Your task to perform on an android device: toggle data saver in the chrome app Image 0: 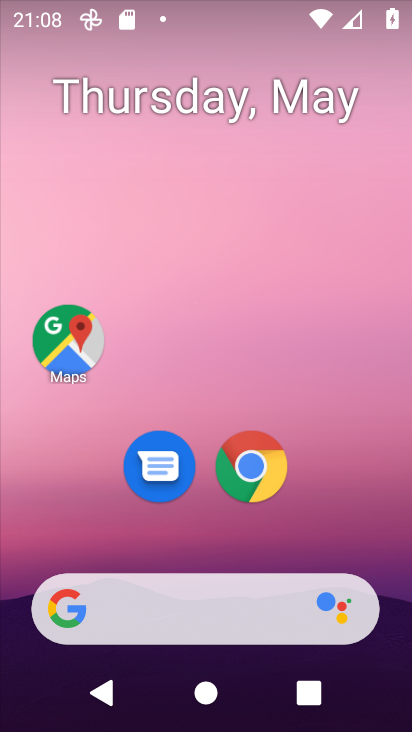
Step 0: click (283, 471)
Your task to perform on an android device: toggle data saver in the chrome app Image 1: 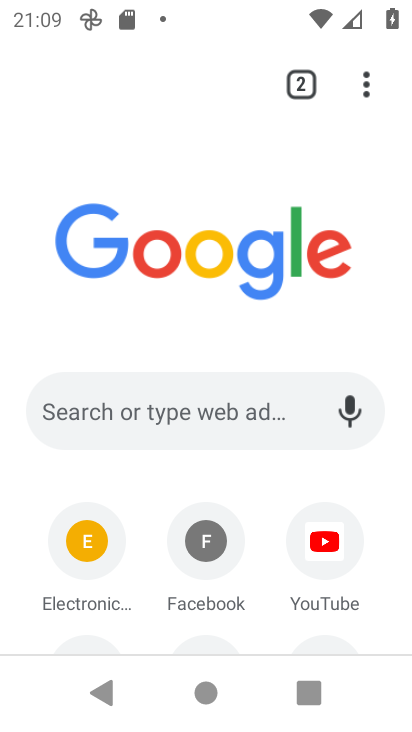
Step 1: click (366, 87)
Your task to perform on an android device: toggle data saver in the chrome app Image 2: 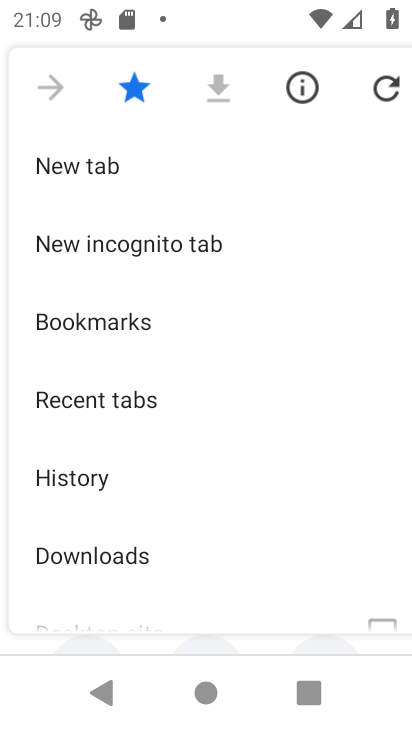
Step 2: drag from (202, 516) to (175, 168)
Your task to perform on an android device: toggle data saver in the chrome app Image 3: 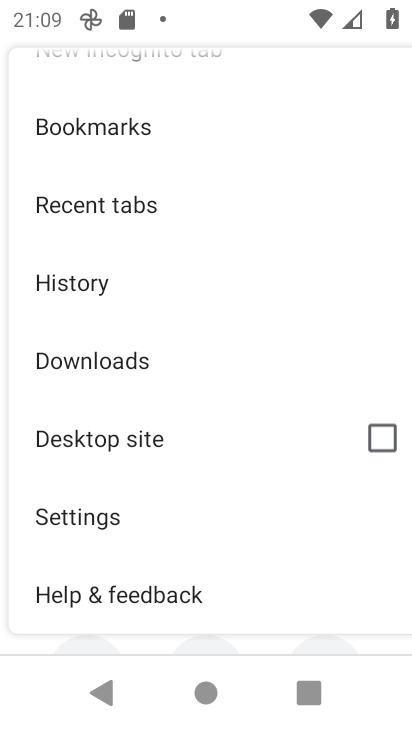
Step 3: click (197, 513)
Your task to perform on an android device: toggle data saver in the chrome app Image 4: 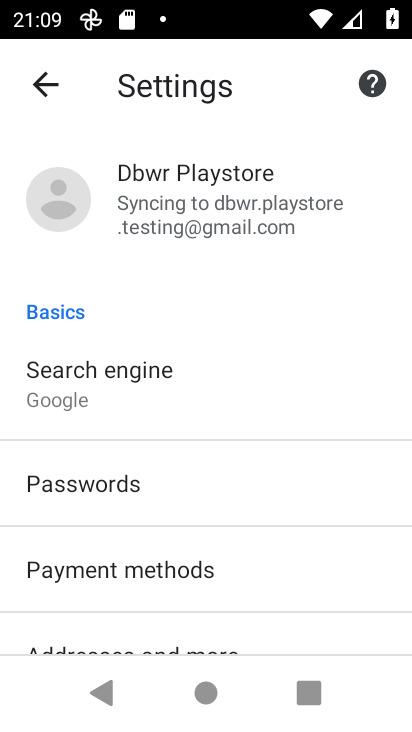
Step 4: drag from (227, 560) to (156, 101)
Your task to perform on an android device: toggle data saver in the chrome app Image 5: 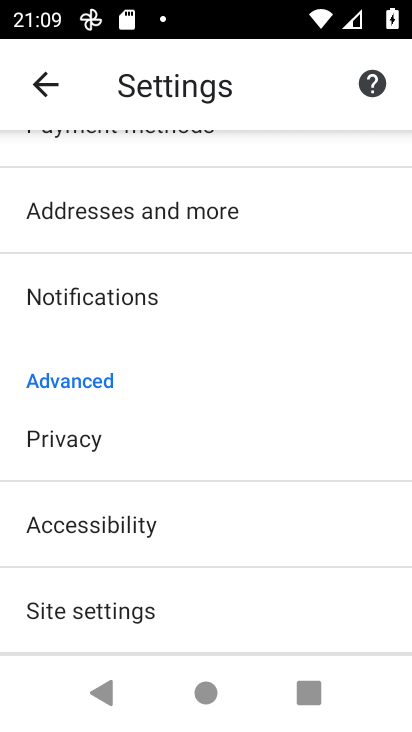
Step 5: drag from (181, 588) to (180, 386)
Your task to perform on an android device: toggle data saver in the chrome app Image 6: 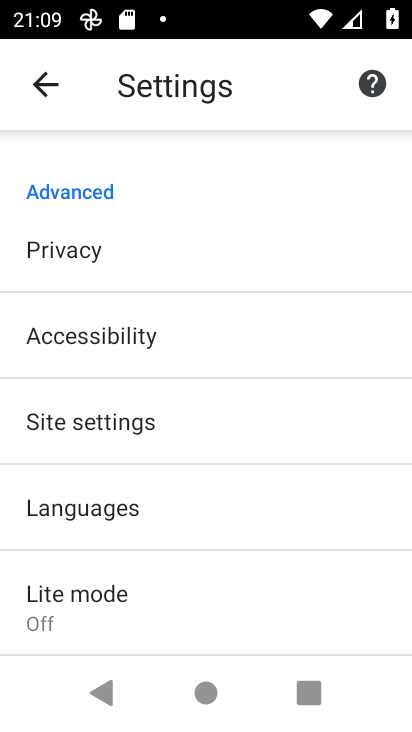
Step 6: click (108, 609)
Your task to perform on an android device: toggle data saver in the chrome app Image 7: 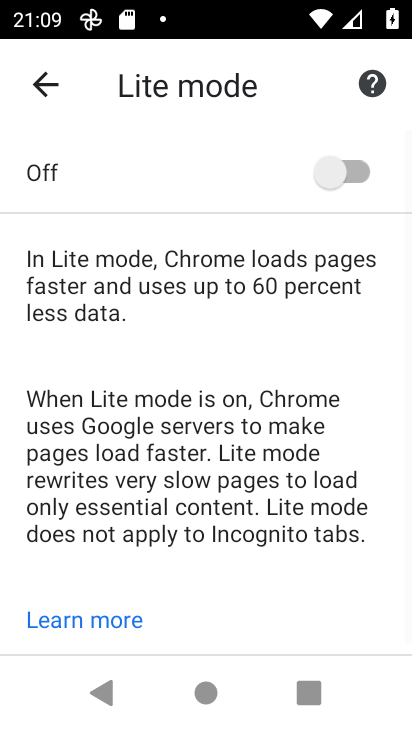
Step 7: click (344, 188)
Your task to perform on an android device: toggle data saver in the chrome app Image 8: 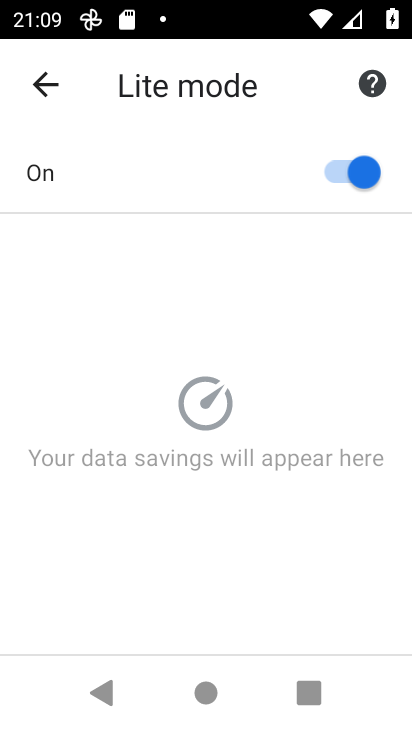
Step 8: task complete